Your task to perform on an android device: Open notification settings Image 0: 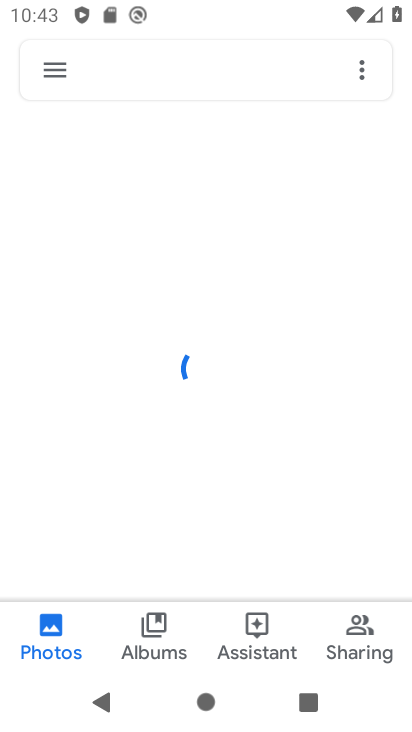
Step 0: press home button
Your task to perform on an android device: Open notification settings Image 1: 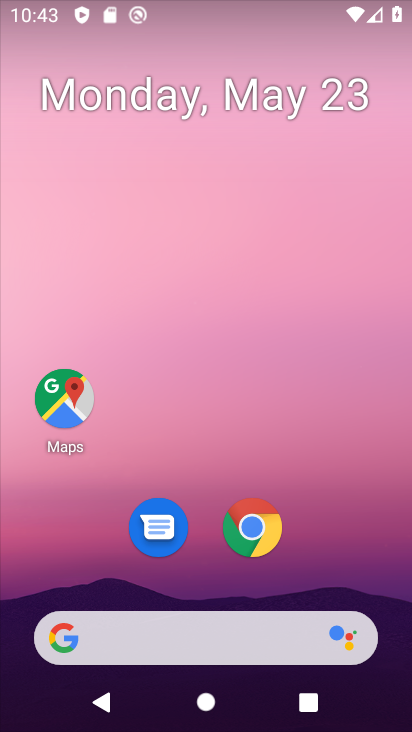
Step 1: drag from (205, 572) to (222, 1)
Your task to perform on an android device: Open notification settings Image 2: 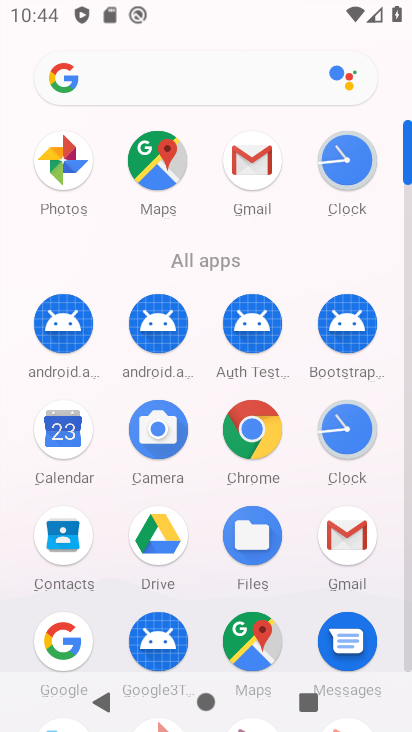
Step 2: drag from (204, 539) to (231, 59)
Your task to perform on an android device: Open notification settings Image 3: 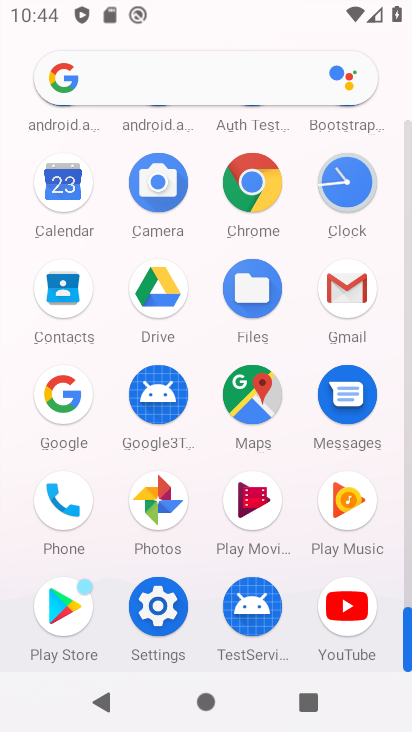
Step 3: click (146, 620)
Your task to perform on an android device: Open notification settings Image 4: 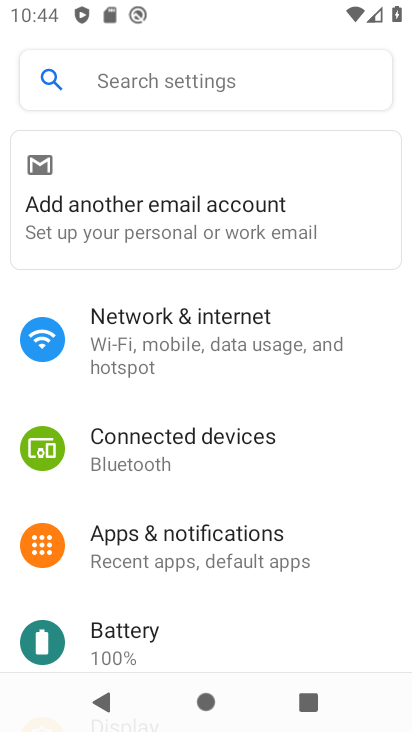
Step 4: click (246, 542)
Your task to perform on an android device: Open notification settings Image 5: 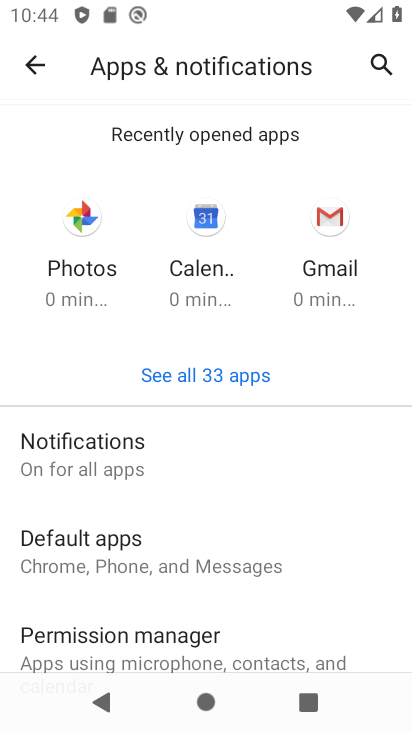
Step 5: click (111, 456)
Your task to perform on an android device: Open notification settings Image 6: 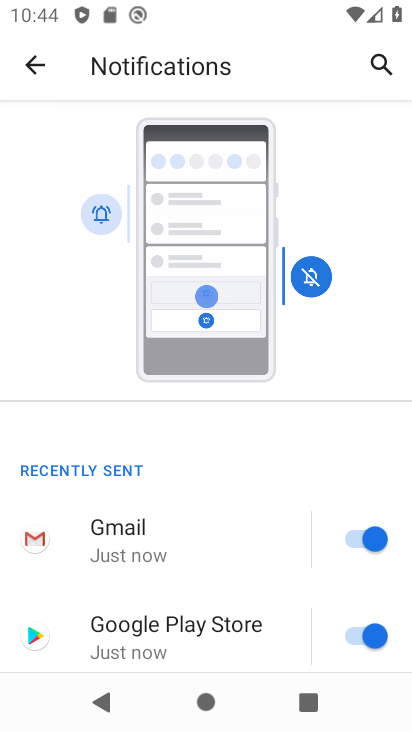
Step 6: task complete